Your task to perform on an android device: Do I have any events this weekend? Image 0: 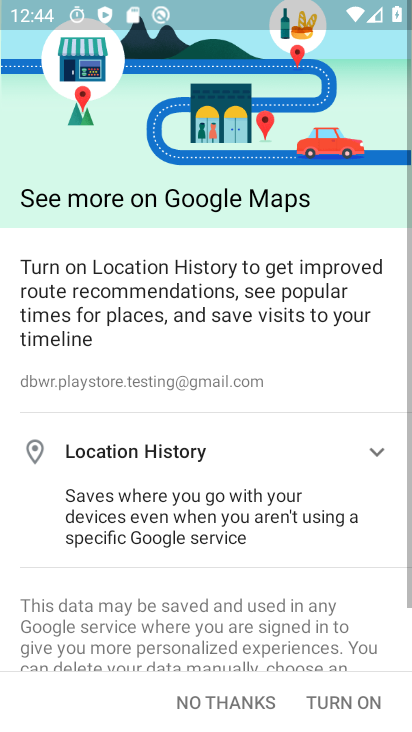
Step 0: press home button
Your task to perform on an android device: Do I have any events this weekend? Image 1: 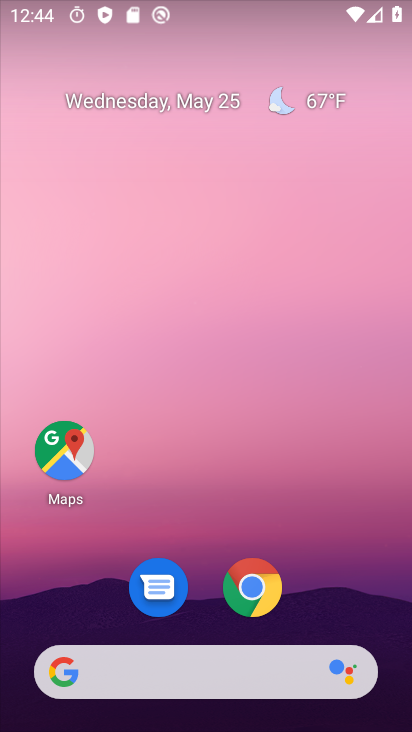
Step 1: drag from (201, 724) to (206, 53)
Your task to perform on an android device: Do I have any events this weekend? Image 2: 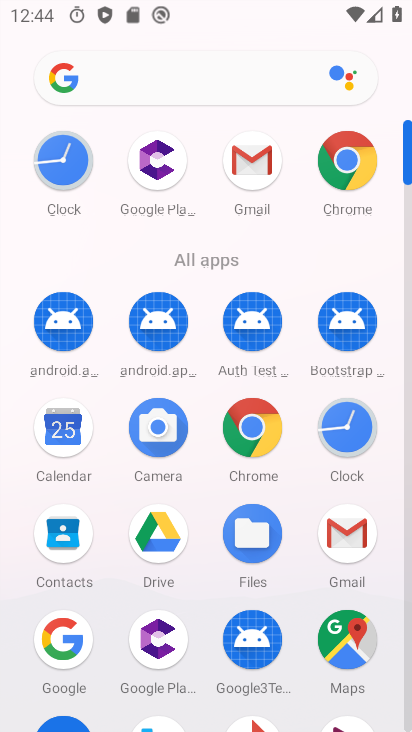
Step 2: click (60, 424)
Your task to perform on an android device: Do I have any events this weekend? Image 3: 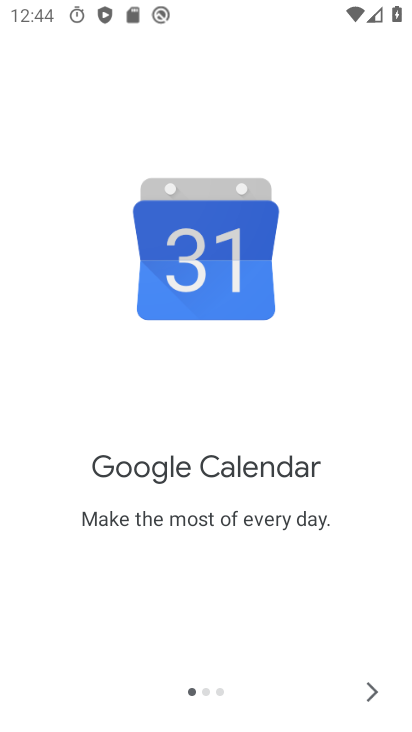
Step 3: click (378, 691)
Your task to perform on an android device: Do I have any events this weekend? Image 4: 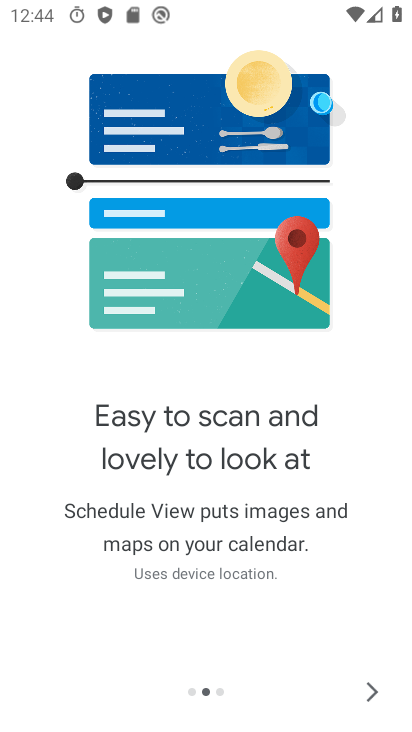
Step 4: click (378, 691)
Your task to perform on an android device: Do I have any events this weekend? Image 5: 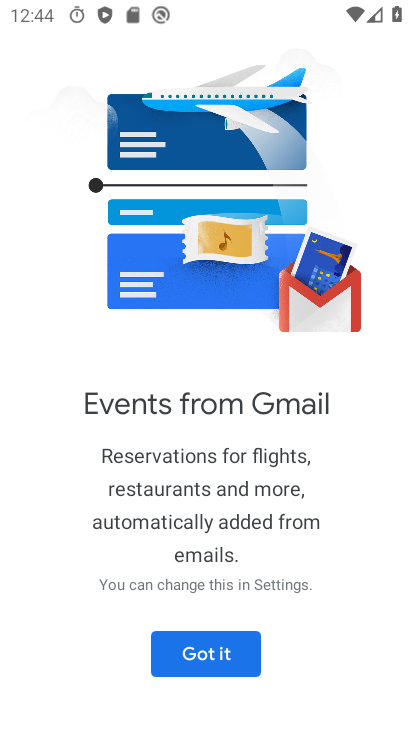
Step 5: click (214, 655)
Your task to perform on an android device: Do I have any events this weekend? Image 6: 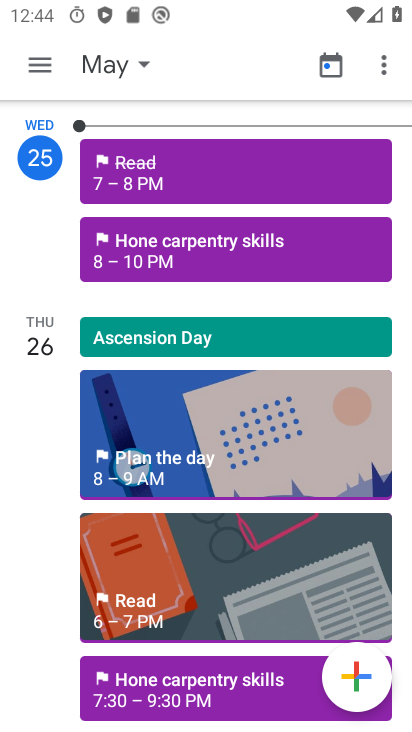
Step 6: click (145, 62)
Your task to perform on an android device: Do I have any events this weekend? Image 7: 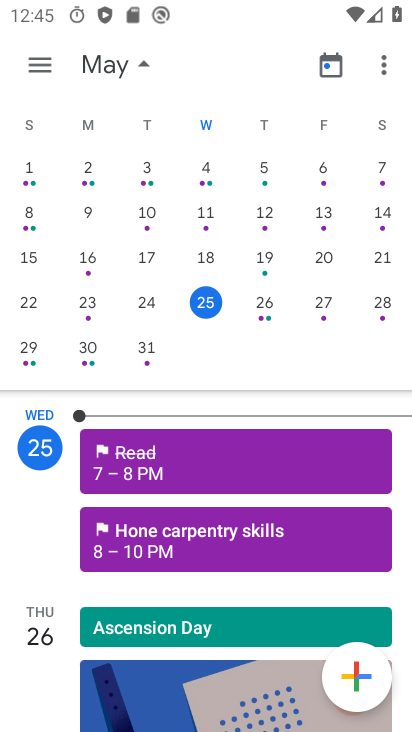
Step 7: click (38, 68)
Your task to perform on an android device: Do I have any events this weekend? Image 8: 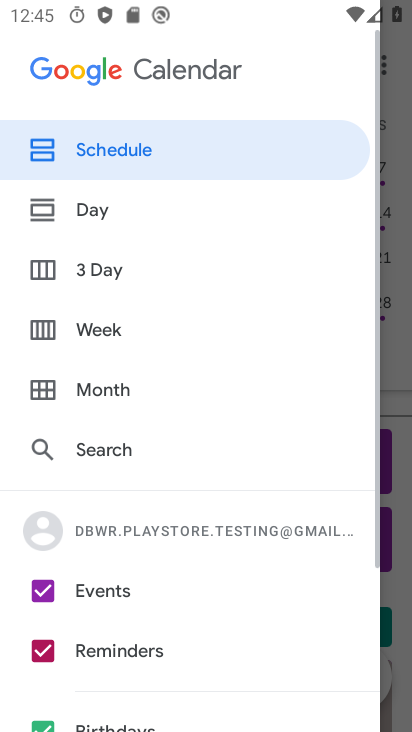
Step 8: drag from (93, 661) to (105, 353)
Your task to perform on an android device: Do I have any events this weekend? Image 9: 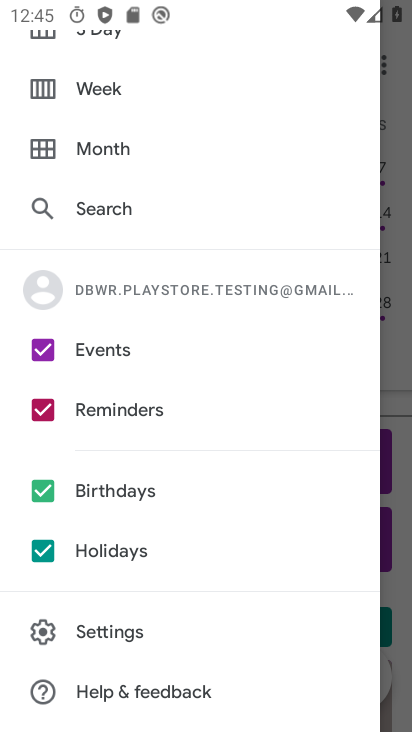
Step 9: click (43, 547)
Your task to perform on an android device: Do I have any events this weekend? Image 10: 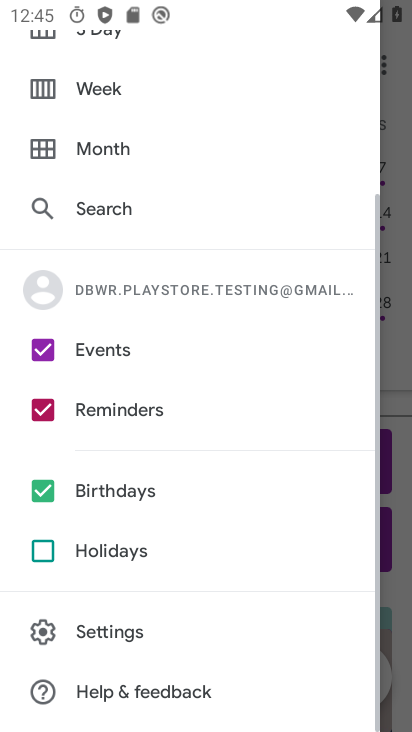
Step 10: click (46, 486)
Your task to perform on an android device: Do I have any events this weekend? Image 11: 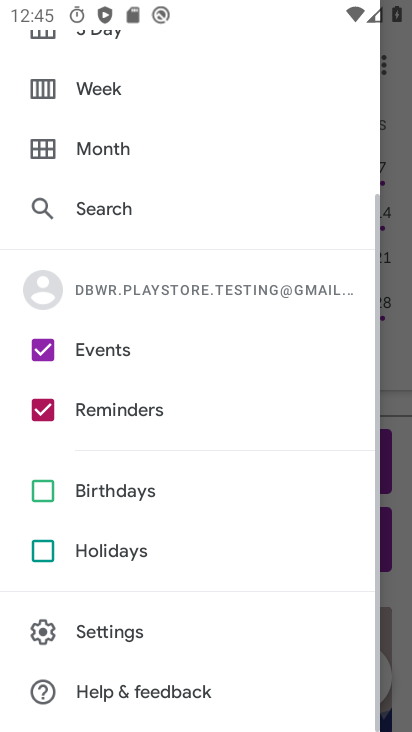
Step 11: click (43, 402)
Your task to perform on an android device: Do I have any events this weekend? Image 12: 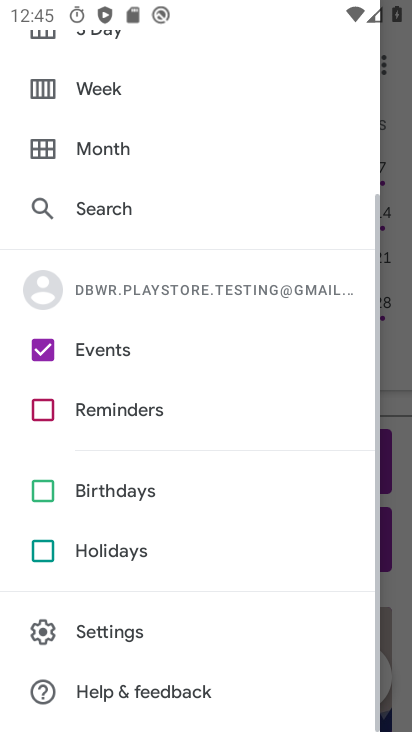
Step 12: drag from (174, 187) to (167, 294)
Your task to perform on an android device: Do I have any events this weekend? Image 13: 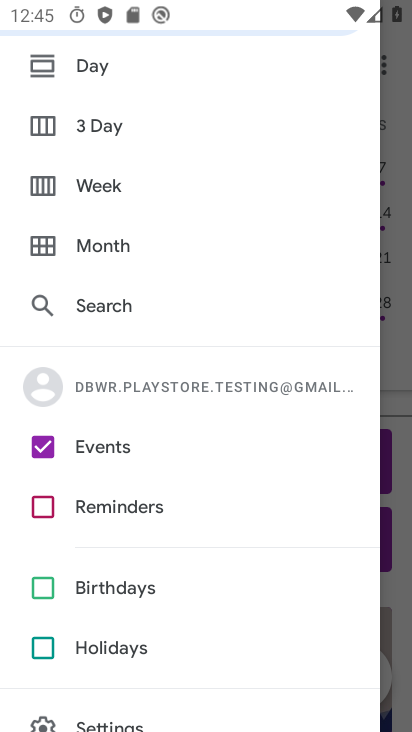
Step 13: click (93, 186)
Your task to perform on an android device: Do I have any events this weekend? Image 14: 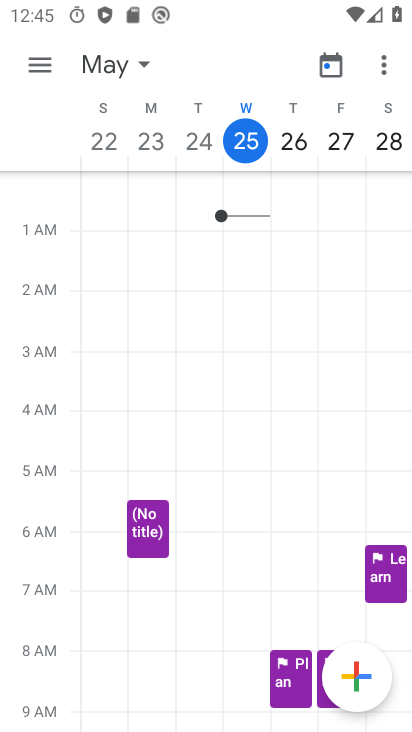
Step 14: click (380, 142)
Your task to perform on an android device: Do I have any events this weekend? Image 15: 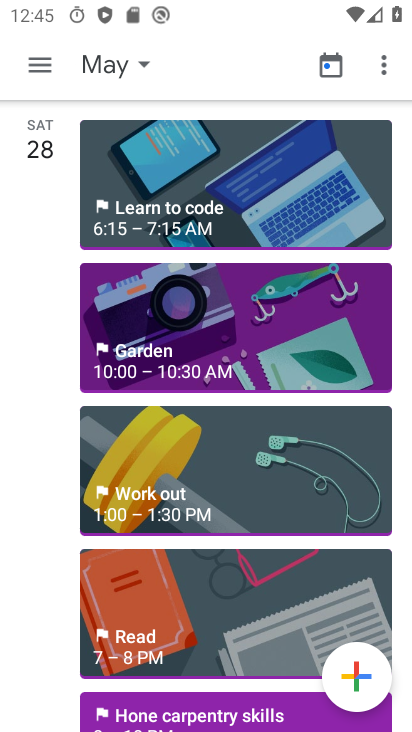
Step 15: task complete